Your task to perform on an android device: open app "DuckDuckGo Privacy Browser" (install if not already installed) Image 0: 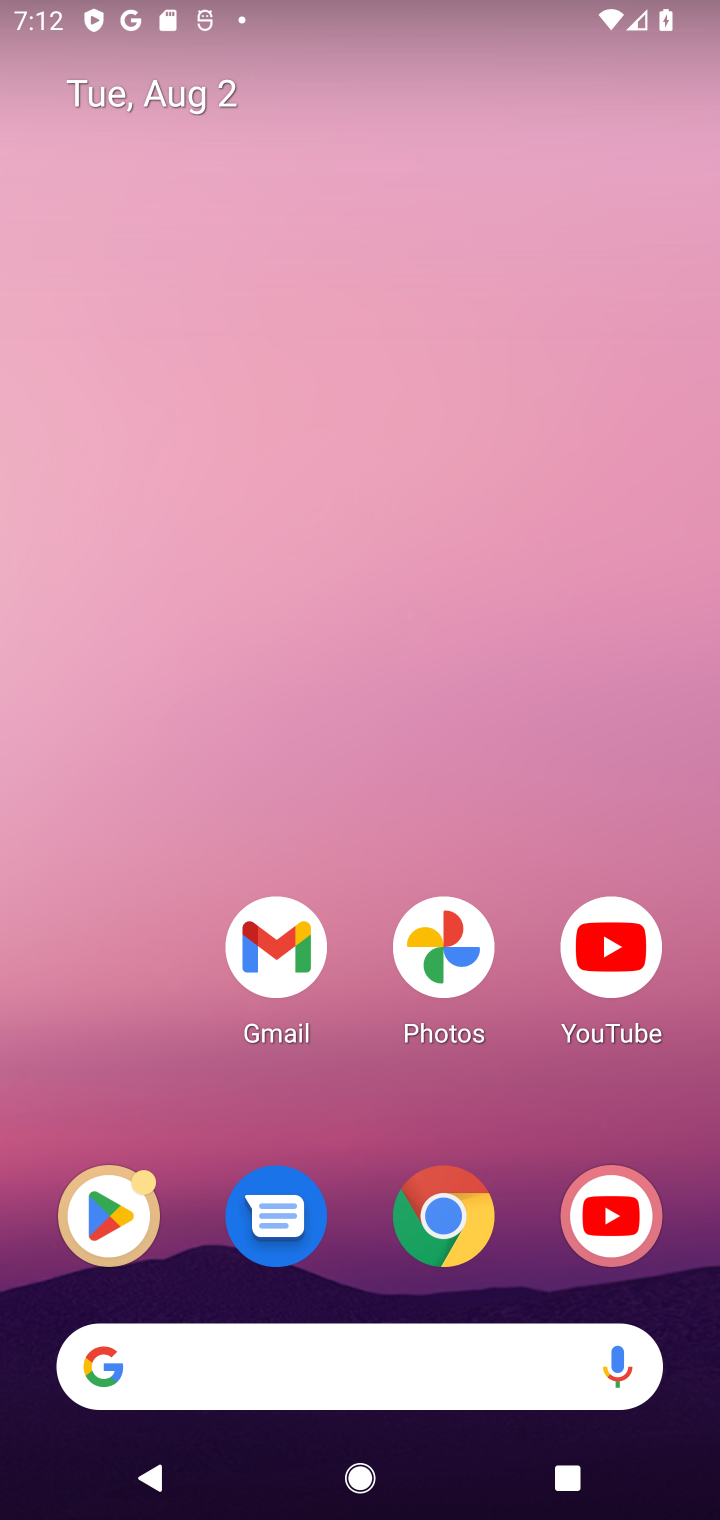
Step 0: drag from (367, 1175) to (448, 276)
Your task to perform on an android device: open app "DuckDuckGo Privacy Browser" (install if not already installed) Image 1: 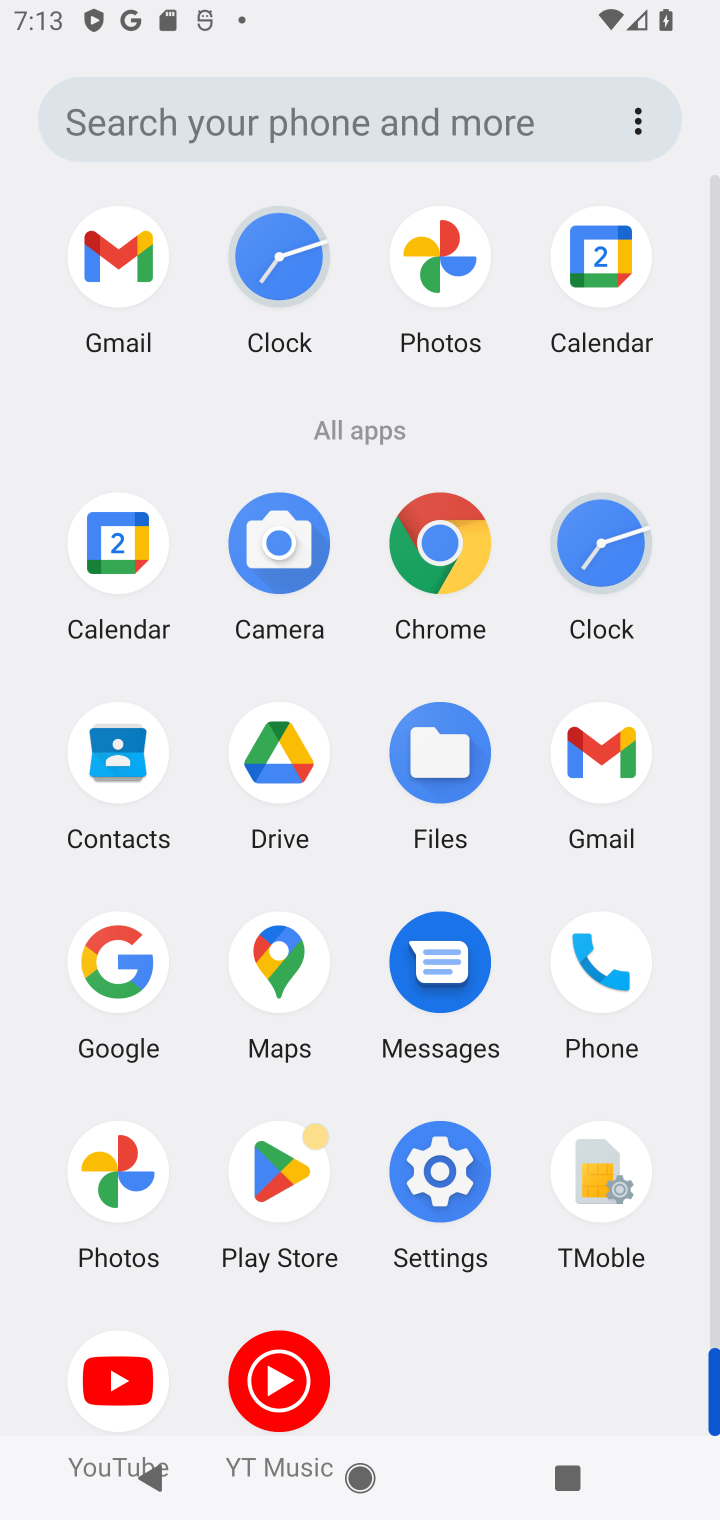
Step 1: click (248, 1162)
Your task to perform on an android device: open app "DuckDuckGo Privacy Browser" (install if not already installed) Image 2: 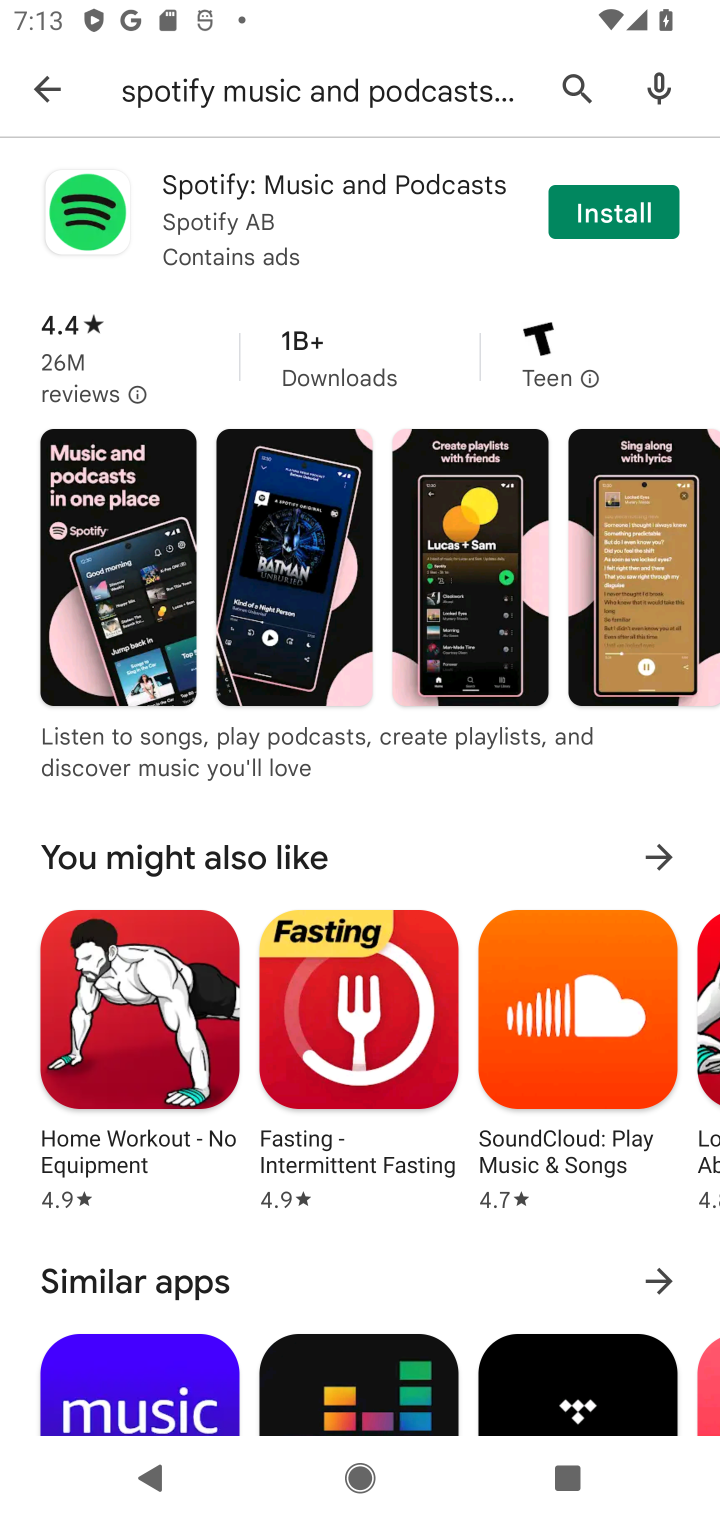
Step 2: click (558, 83)
Your task to perform on an android device: open app "DuckDuckGo Privacy Browser" (install if not already installed) Image 3: 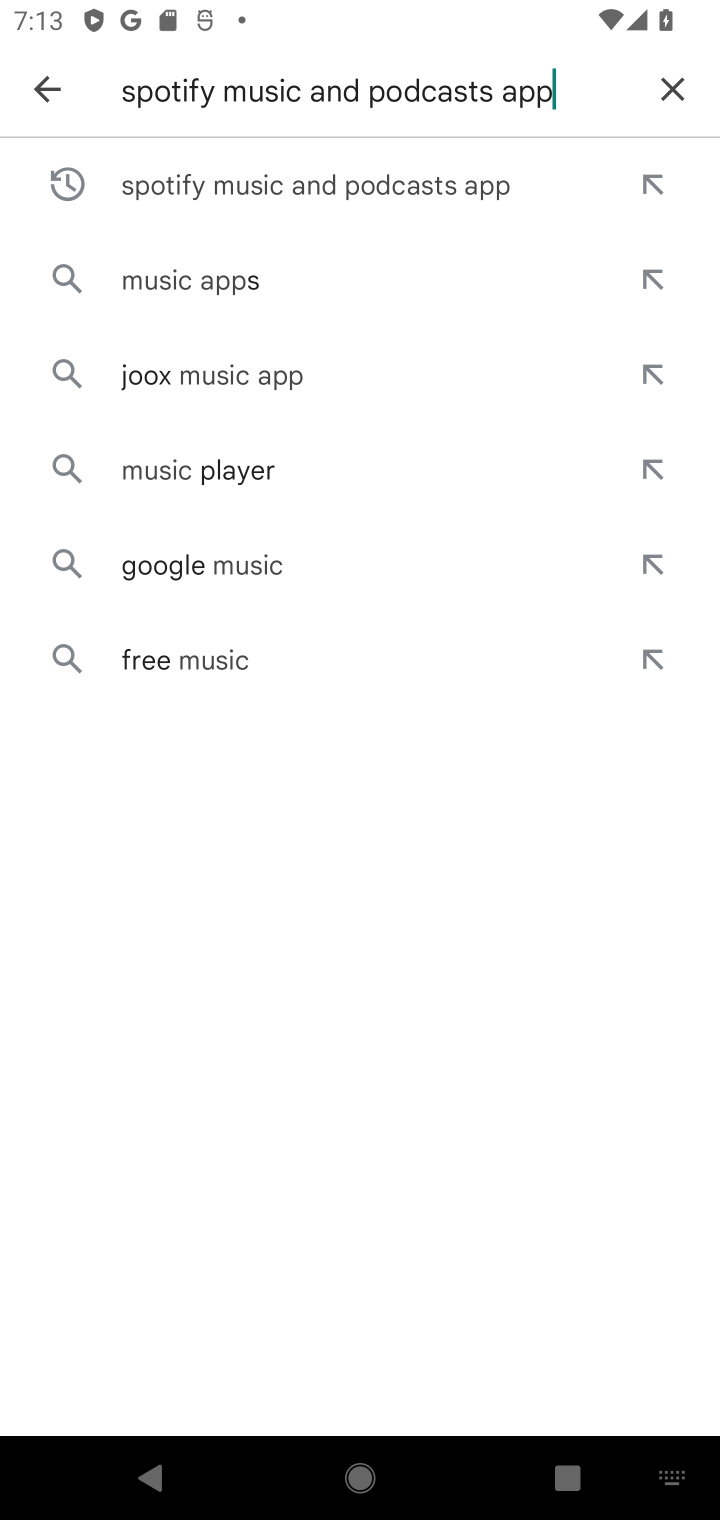
Step 3: click (679, 80)
Your task to perform on an android device: open app "DuckDuckGo Privacy Browser" (install if not already installed) Image 4: 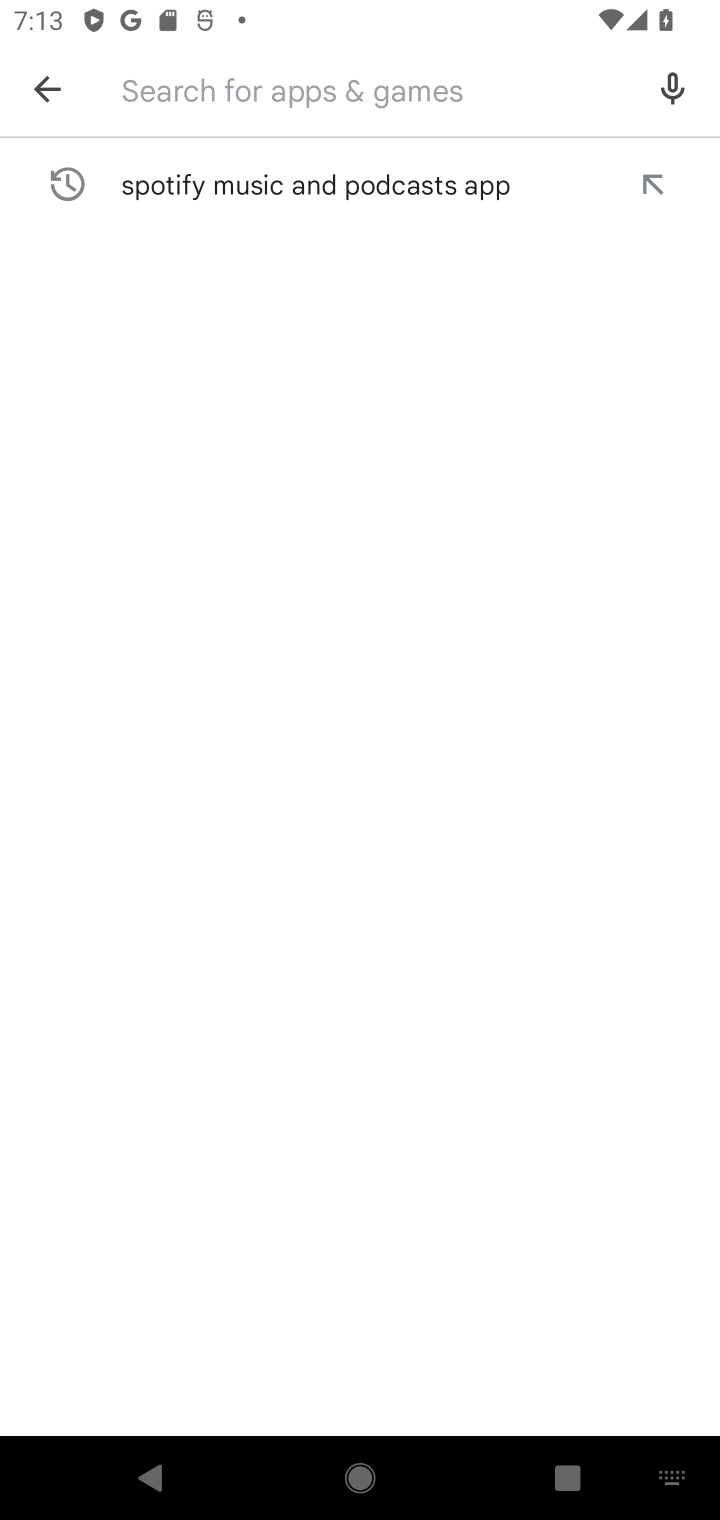
Step 4: type "DuckDuckGo Privacy Browser"
Your task to perform on an android device: open app "DuckDuckGo Privacy Browser" (install if not already installed) Image 5: 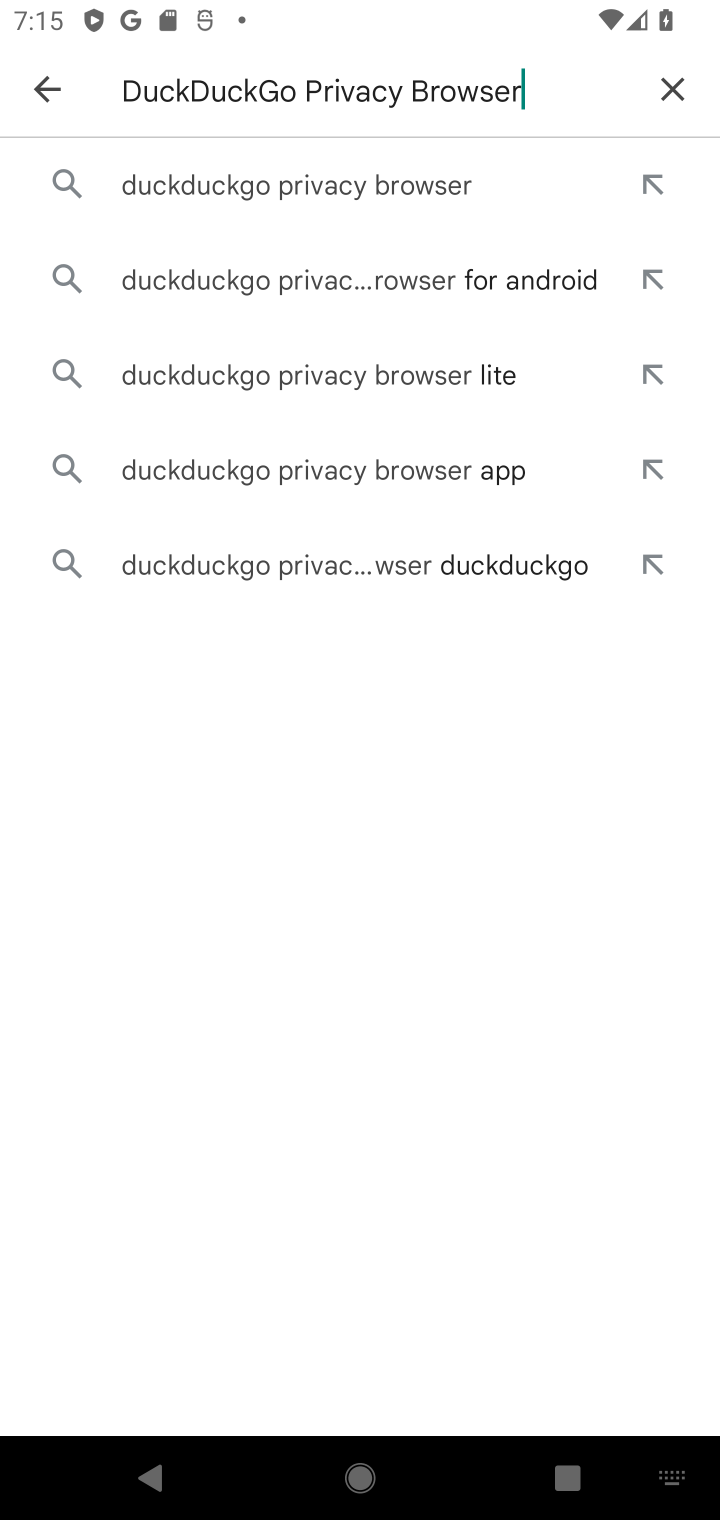
Step 5: click (335, 189)
Your task to perform on an android device: open app "DuckDuckGo Privacy Browser" (install if not already installed) Image 6: 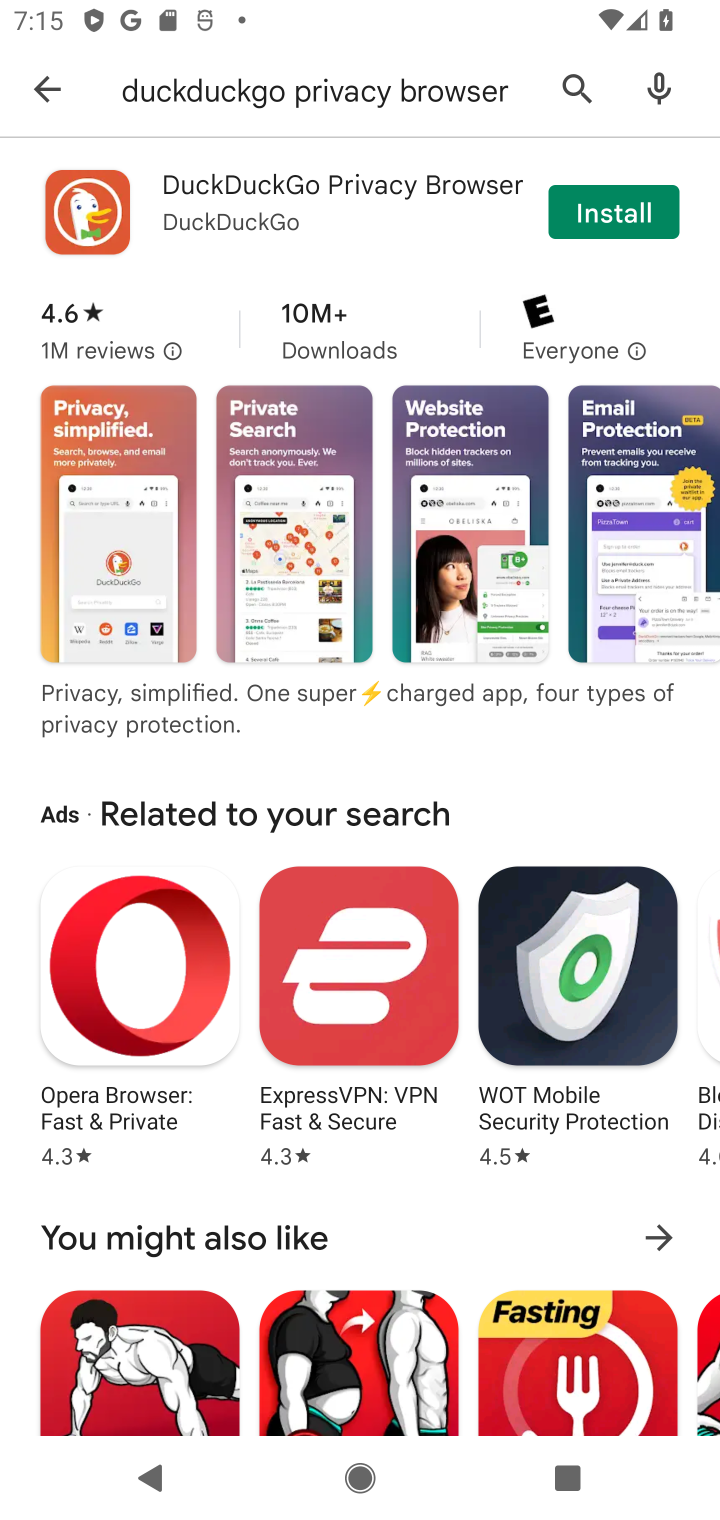
Step 6: click (597, 205)
Your task to perform on an android device: open app "DuckDuckGo Privacy Browser" (install if not already installed) Image 7: 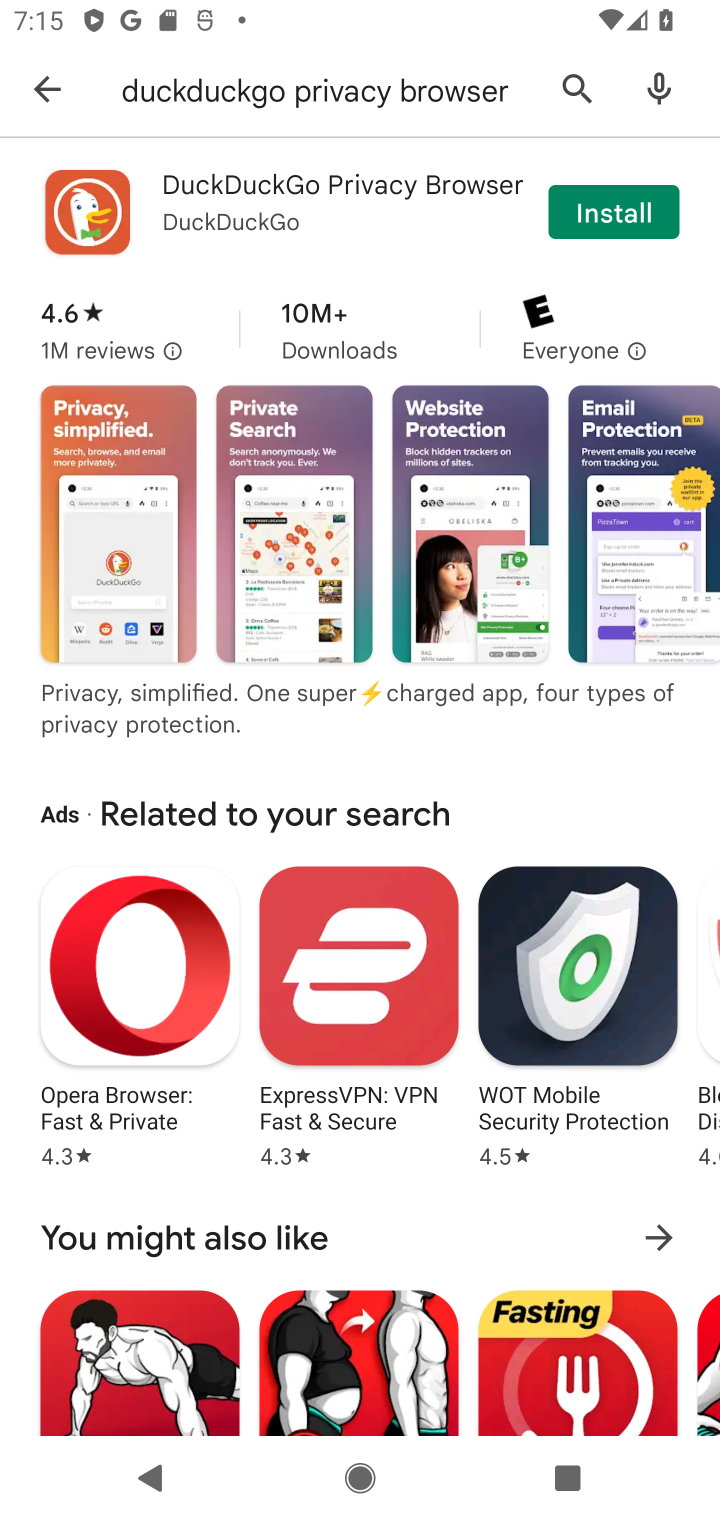
Step 7: click (650, 228)
Your task to perform on an android device: open app "DuckDuckGo Privacy Browser" (install if not already installed) Image 8: 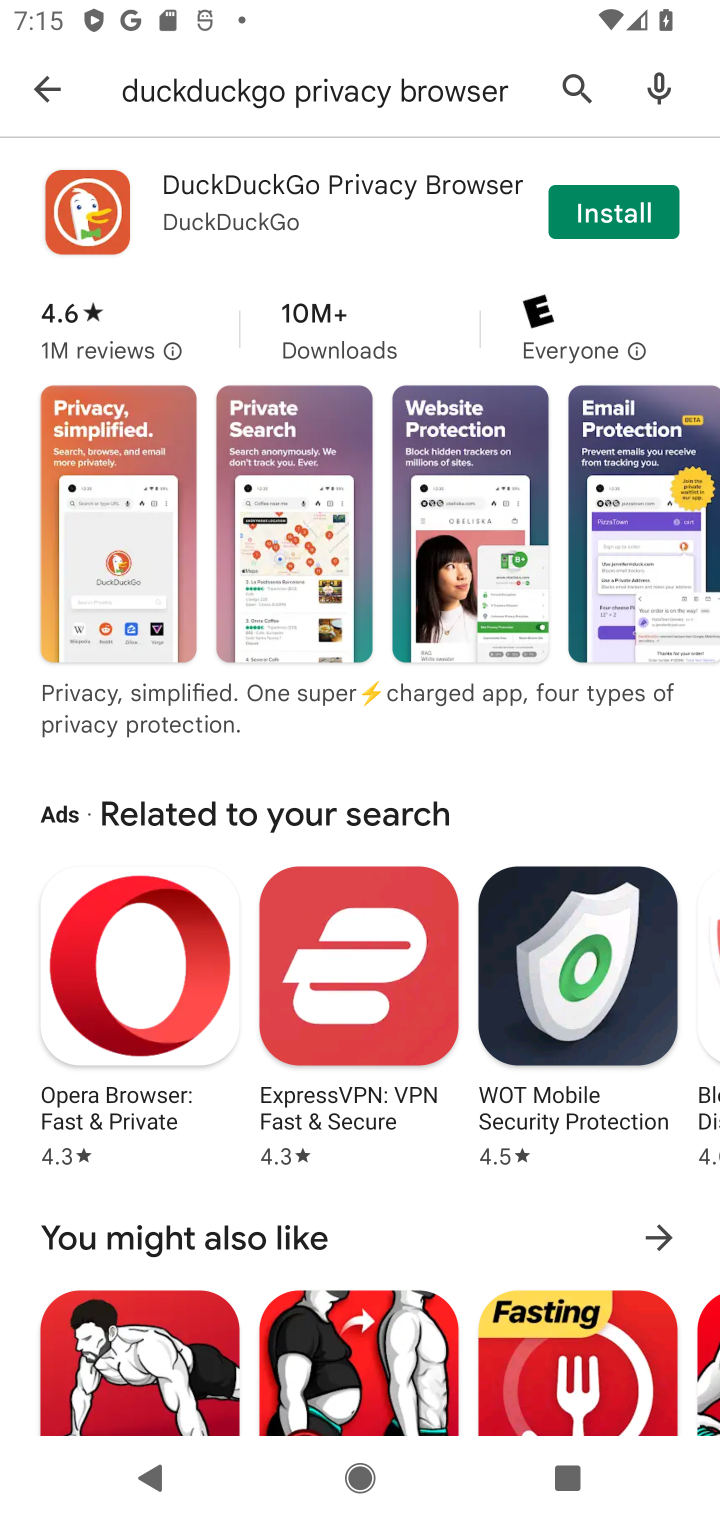
Step 8: task complete